Your task to perform on an android device: Go to Google Image 0: 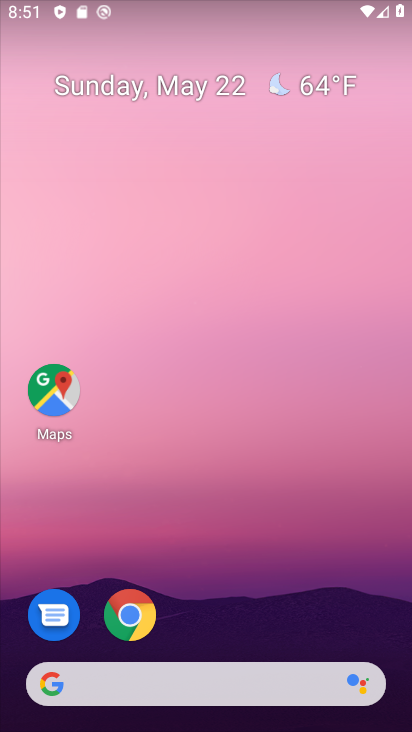
Step 0: drag from (230, 628) to (268, 207)
Your task to perform on an android device: Go to Google Image 1: 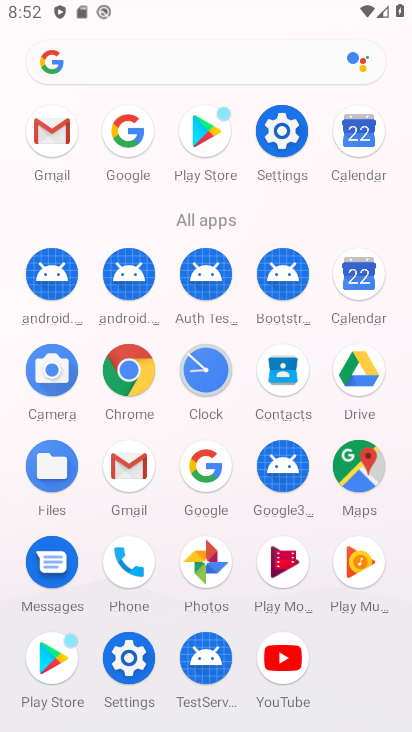
Step 1: click (217, 488)
Your task to perform on an android device: Go to Google Image 2: 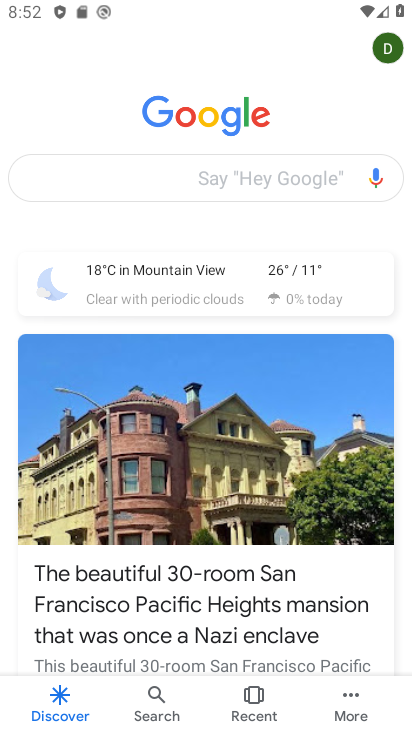
Step 2: task complete